Your task to perform on an android device: Go to accessibility settings Image 0: 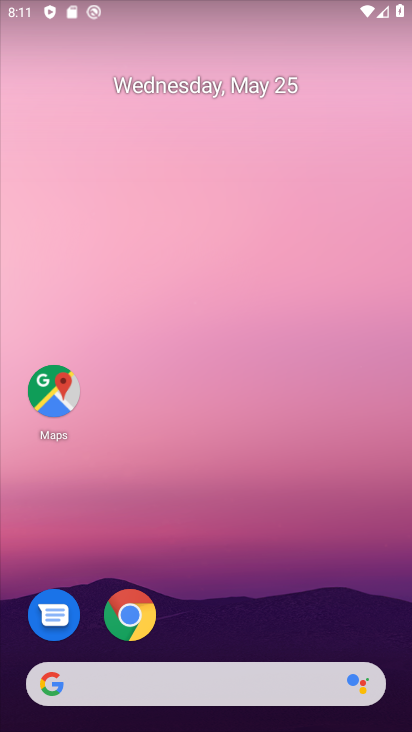
Step 0: drag from (198, 643) to (152, 59)
Your task to perform on an android device: Go to accessibility settings Image 1: 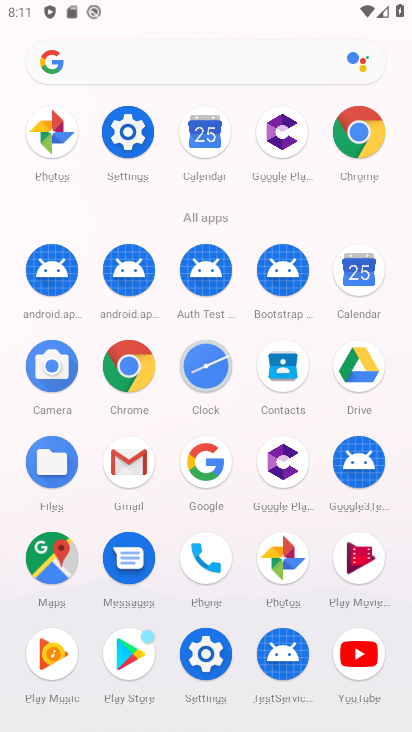
Step 1: click (195, 653)
Your task to perform on an android device: Go to accessibility settings Image 2: 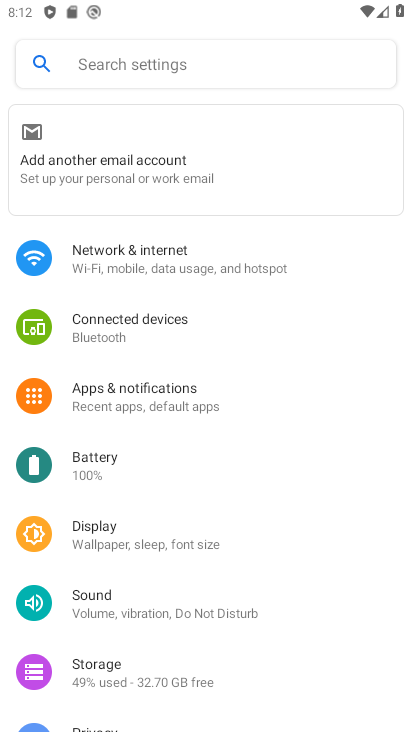
Step 2: drag from (194, 584) to (121, 125)
Your task to perform on an android device: Go to accessibility settings Image 3: 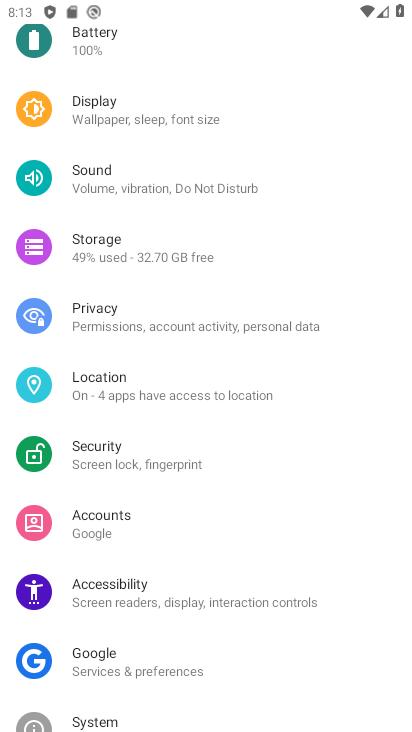
Step 3: click (117, 599)
Your task to perform on an android device: Go to accessibility settings Image 4: 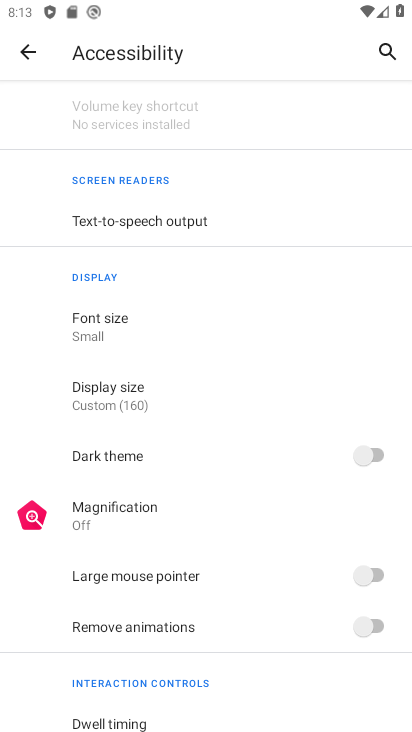
Step 4: task complete